Your task to perform on an android device: check the backup settings in the google photos Image 0: 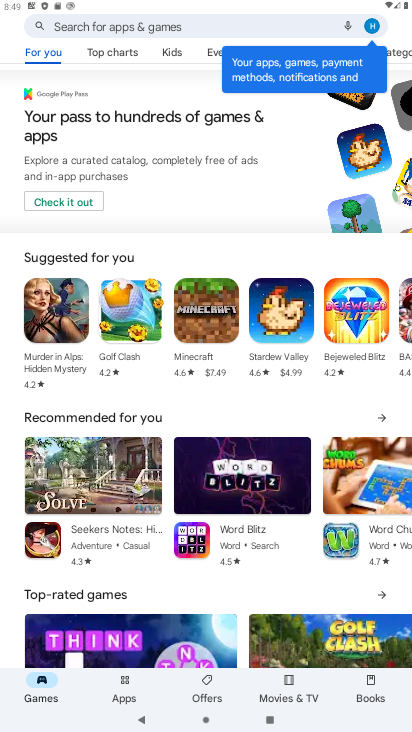
Step 0: press home button
Your task to perform on an android device: check the backup settings in the google photos Image 1: 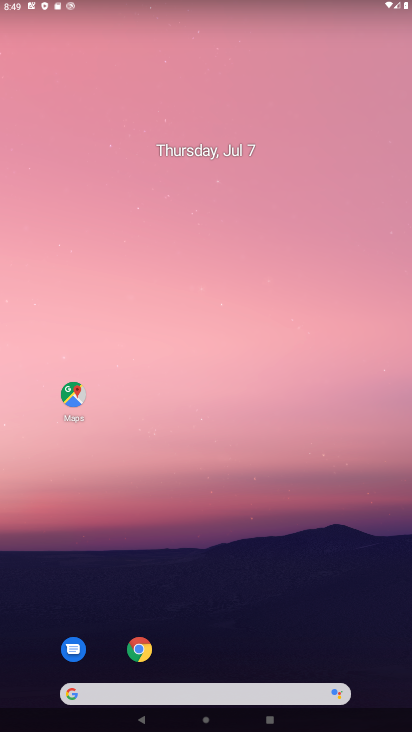
Step 1: drag from (232, 722) to (232, 62)
Your task to perform on an android device: check the backup settings in the google photos Image 2: 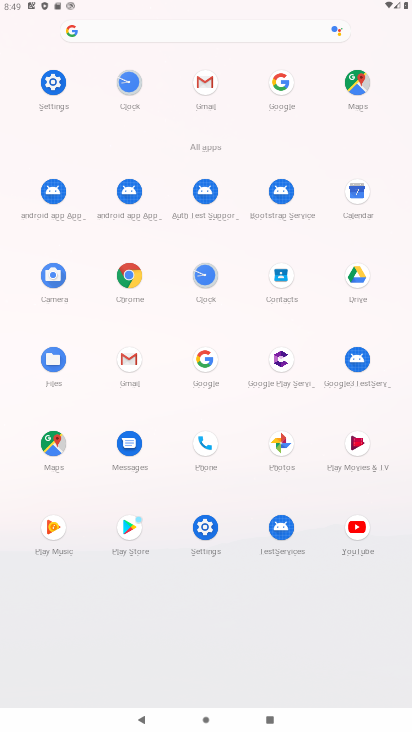
Step 2: click (284, 442)
Your task to perform on an android device: check the backup settings in the google photos Image 3: 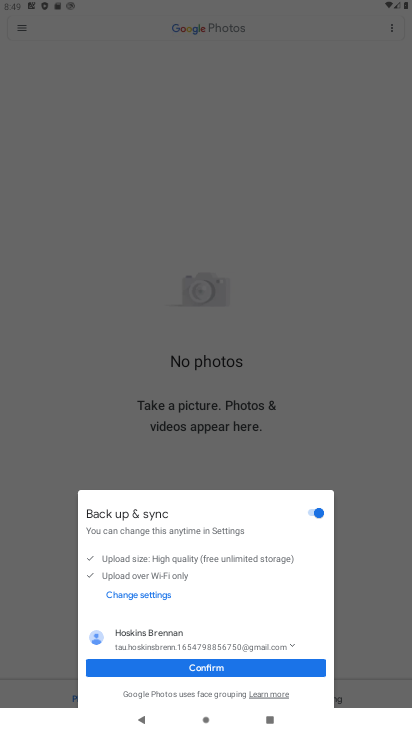
Step 3: click (201, 663)
Your task to perform on an android device: check the backup settings in the google photos Image 4: 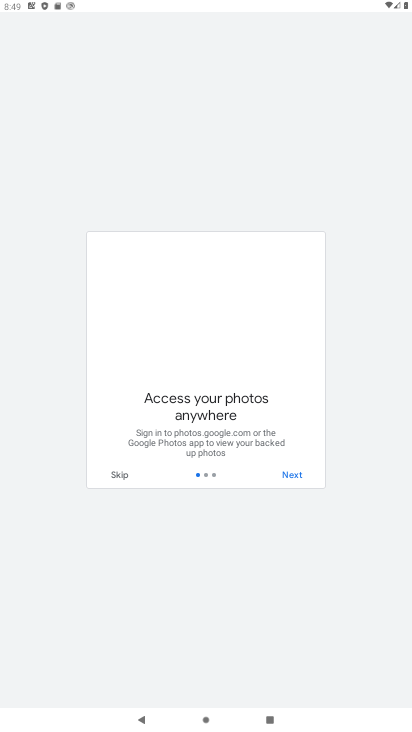
Step 4: click (288, 470)
Your task to perform on an android device: check the backup settings in the google photos Image 5: 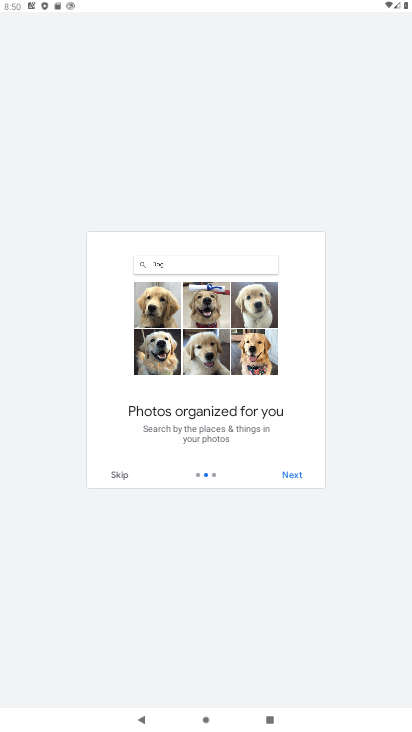
Step 5: click (295, 467)
Your task to perform on an android device: check the backup settings in the google photos Image 6: 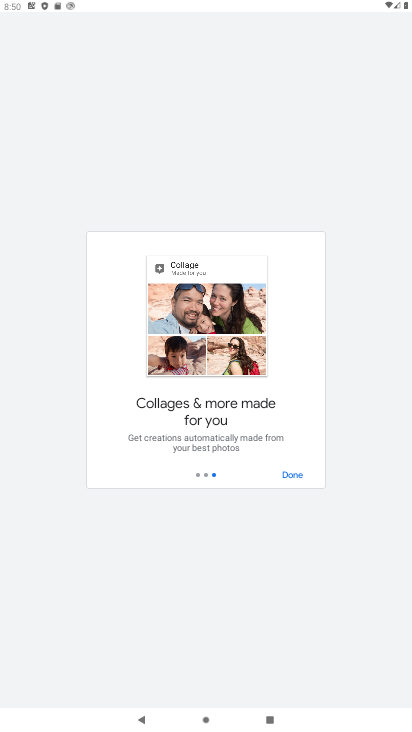
Step 6: click (294, 467)
Your task to perform on an android device: check the backup settings in the google photos Image 7: 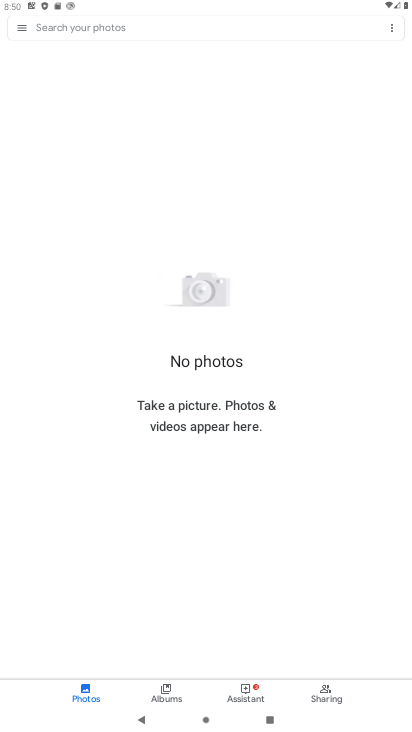
Step 7: click (23, 25)
Your task to perform on an android device: check the backup settings in the google photos Image 8: 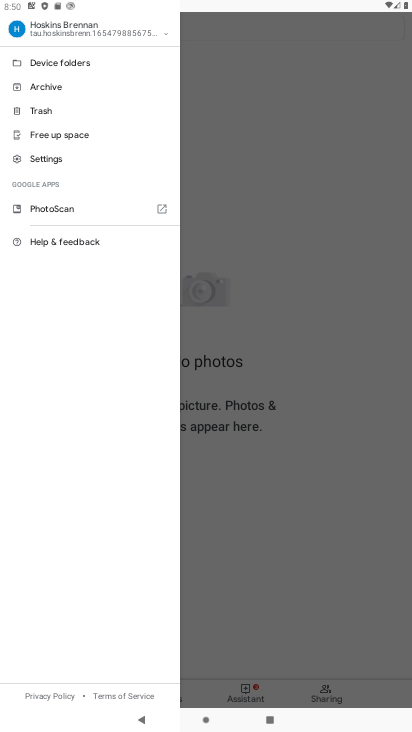
Step 8: click (51, 159)
Your task to perform on an android device: check the backup settings in the google photos Image 9: 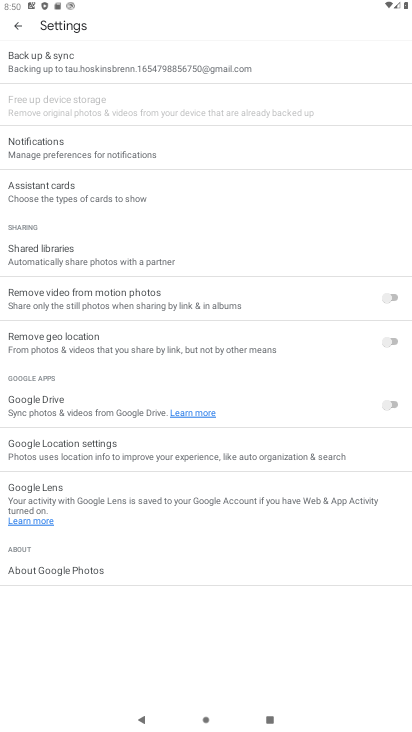
Step 9: click (56, 67)
Your task to perform on an android device: check the backup settings in the google photos Image 10: 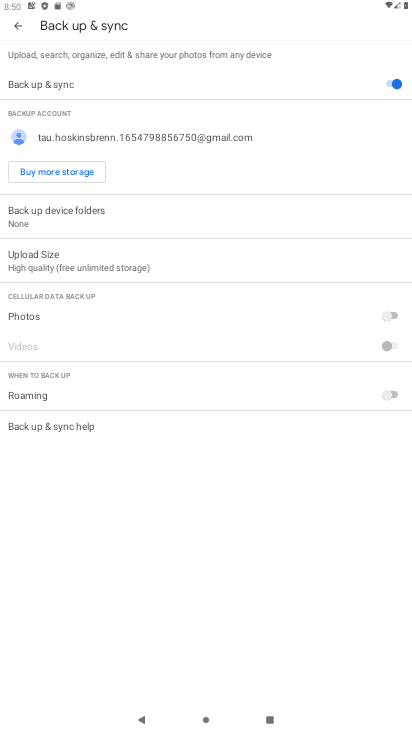
Step 10: task complete